Your task to perform on an android device: turn on improve location accuracy Image 0: 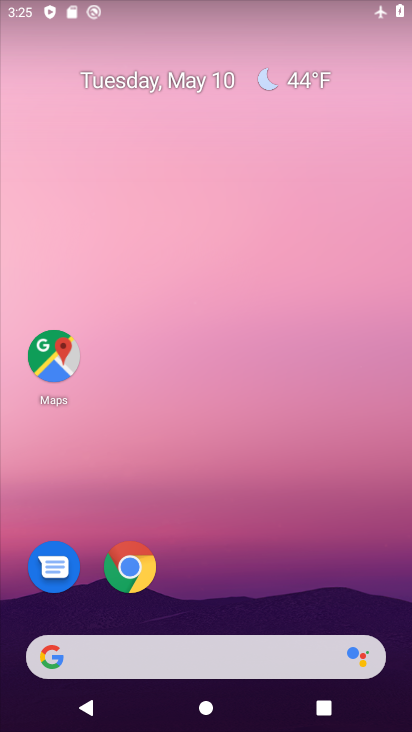
Step 0: drag from (262, 509) to (250, 11)
Your task to perform on an android device: turn on improve location accuracy Image 1: 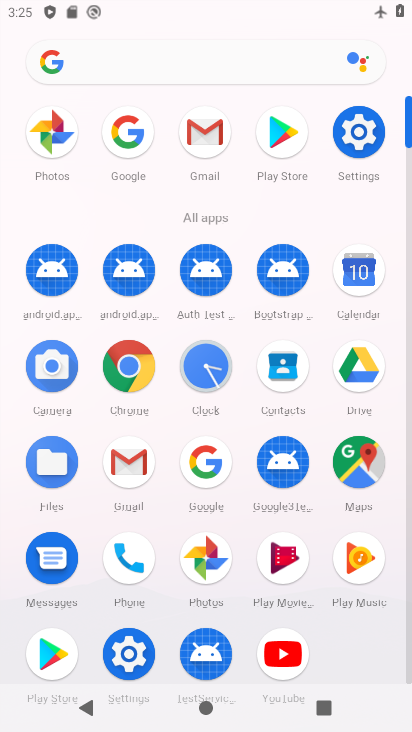
Step 1: click (356, 130)
Your task to perform on an android device: turn on improve location accuracy Image 2: 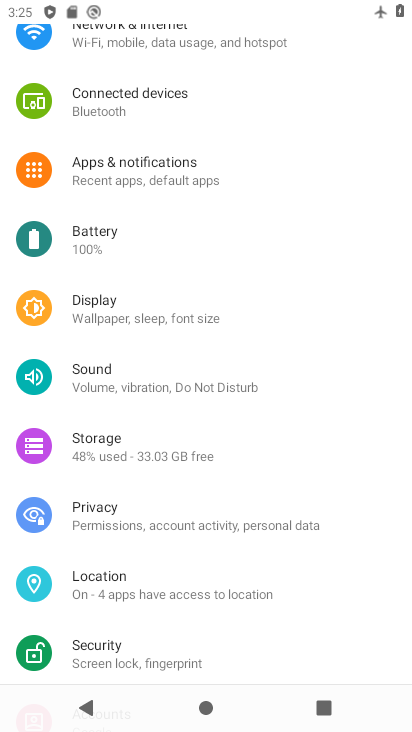
Step 2: click (121, 588)
Your task to perform on an android device: turn on improve location accuracy Image 3: 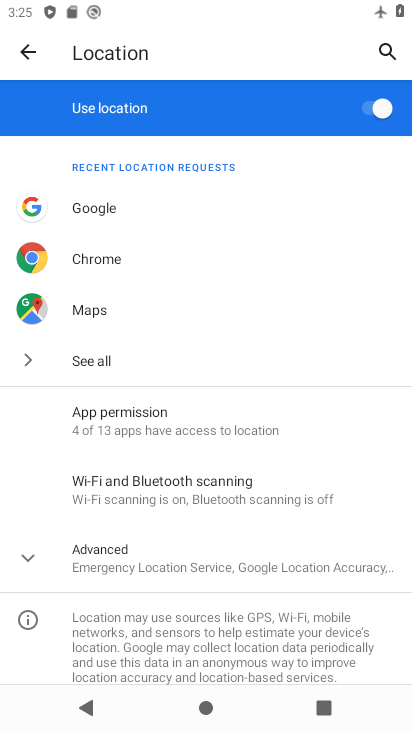
Step 3: click (117, 564)
Your task to perform on an android device: turn on improve location accuracy Image 4: 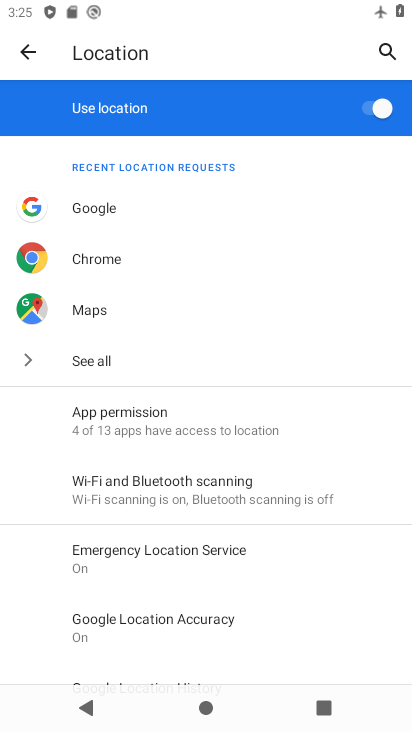
Step 4: drag from (118, 582) to (176, 446)
Your task to perform on an android device: turn on improve location accuracy Image 5: 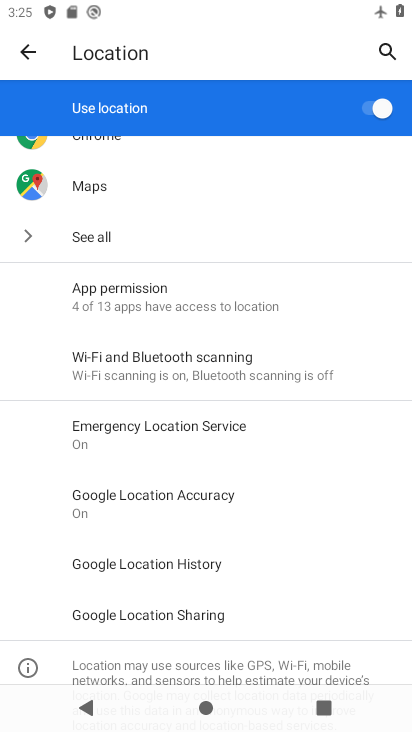
Step 5: click (143, 497)
Your task to perform on an android device: turn on improve location accuracy Image 6: 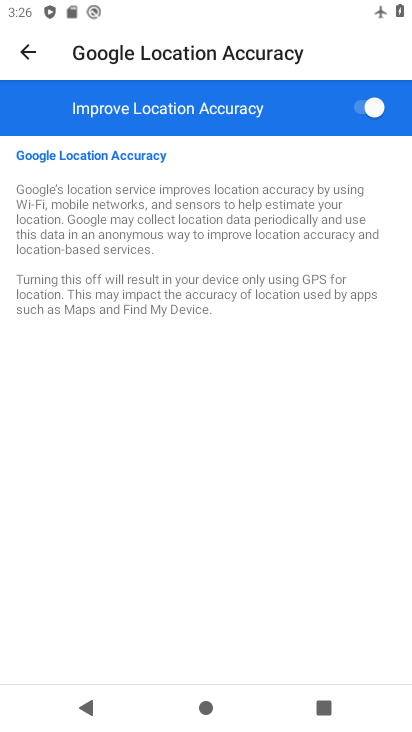
Step 6: task complete